Your task to perform on an android device: change the clock display to analog Image 0: 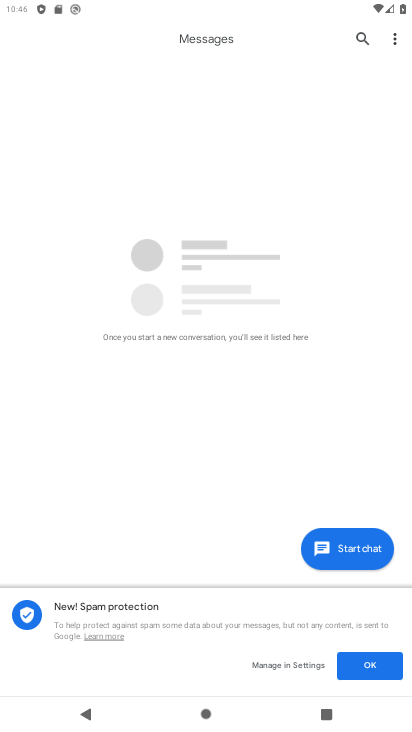
Step 0: press home button
Your task to perform on an android device: change the clock display to analog Image 1: 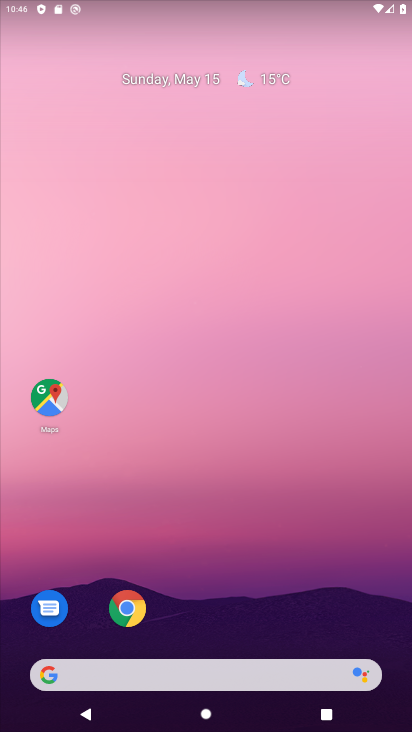
Step 1: drag from (277, 603) to (221, 226)
Your task to perform on an android device: change the clock display to analog Image 2: 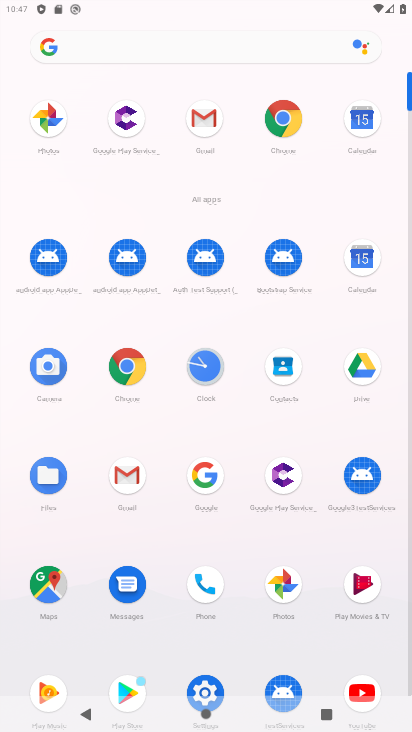
Step 2: click (209, 374)
Your task to perform on an android device: change the clock display to analog Image 3: 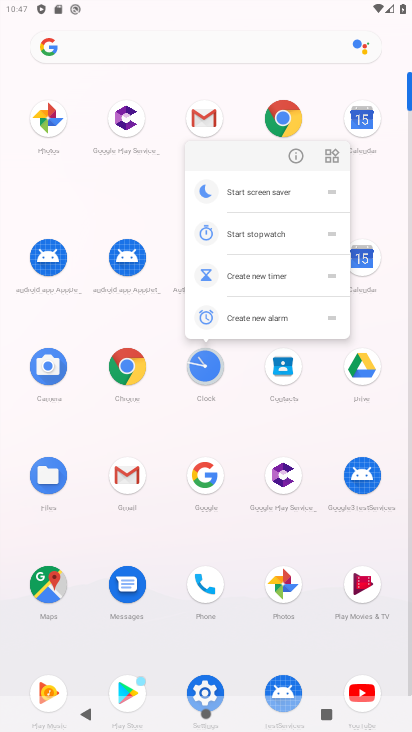
Step 3: click (212, 376)
Your task to perform on an android device: change the clock display to analog Image 4: 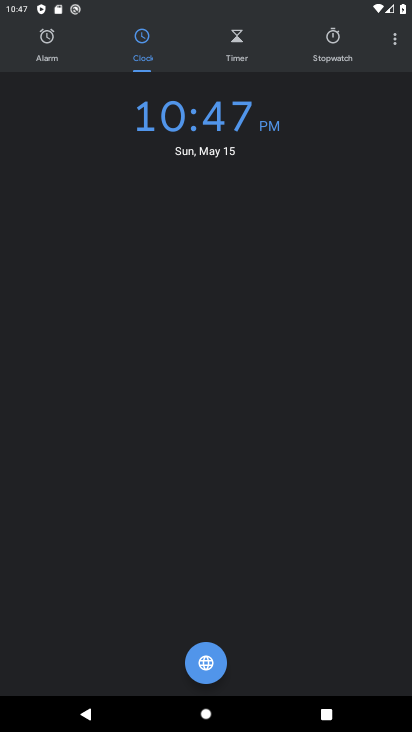
Step 4: click (398, 38)
Your task to perform on an android device: change the clock display to analog Image 5: 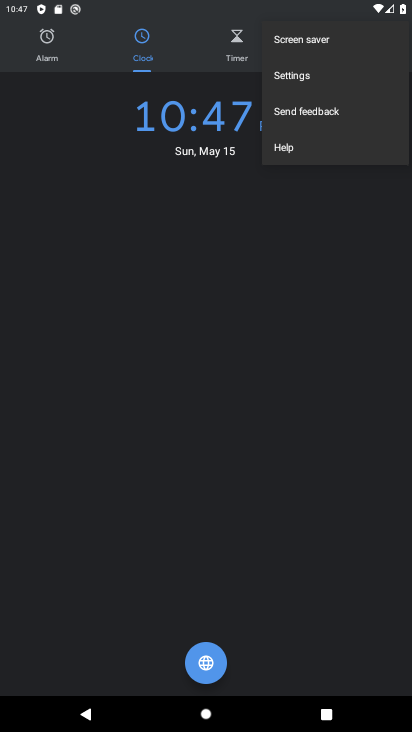
Step 5: click (293, 76)
Your task to perform on an android device: change the clock display to analog Image 6: 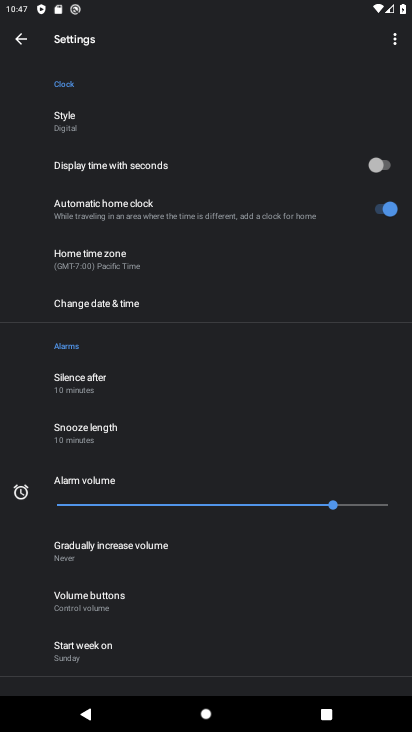
Step 6: click (62, 129)
Your task to perform on an android device: change the clock display to analog Image 7: 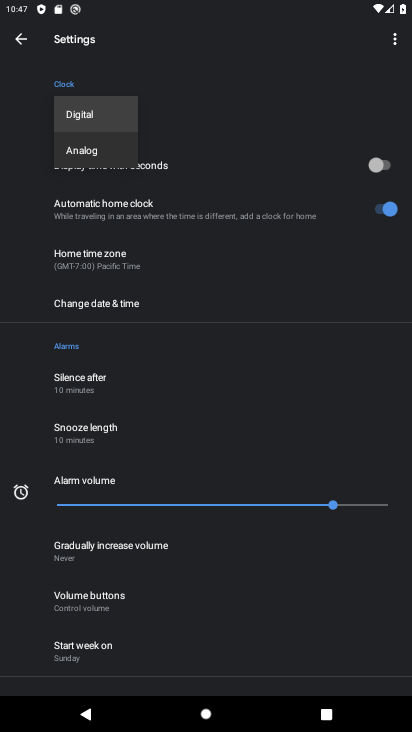
Step 7: click (83, 152)
Your task to perform on an android device: change the clock display to analog Image 8: 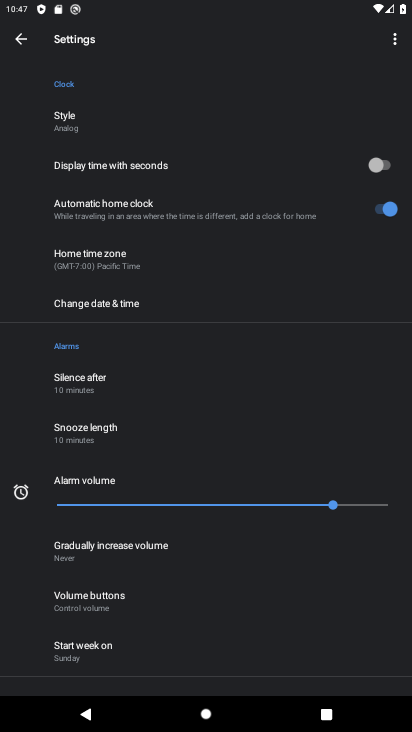
Step 8: task complete